Your task to perform on an android device: see creations saved in the google photos Image 0: 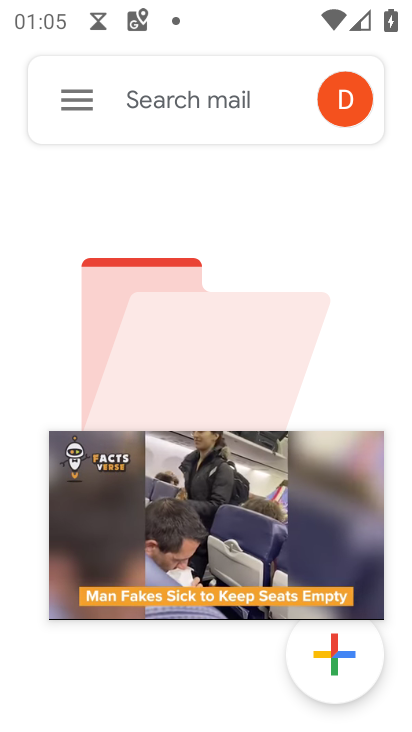
Step 0: press home button
Your task to perform on an android device: see creations saved in the google photos Image 1: 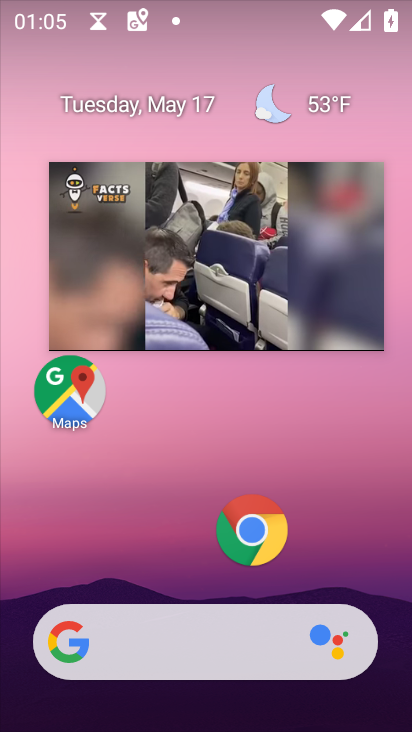
Step 1: click (381, 180)
Your task to perform on an android device: see creations saved in the google photos Image 2: 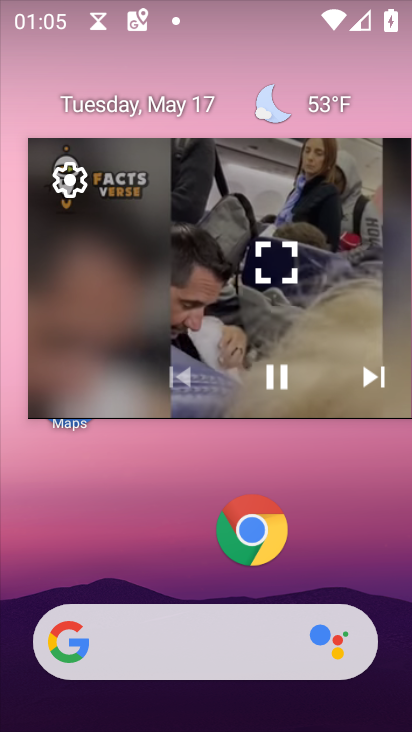
Step 2: click (350, 182)
Your task to perform on an android device: see creations saved in the google photos Image 3: 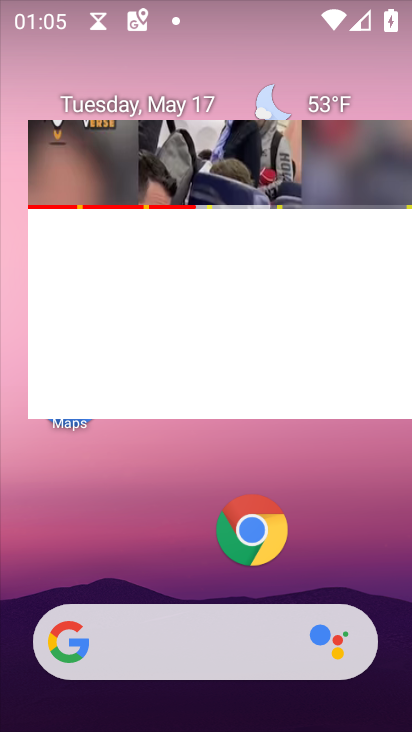
Step 3: click (353, 185)
Your task to perform on an android device: see creations saved in the google photos Image 4: 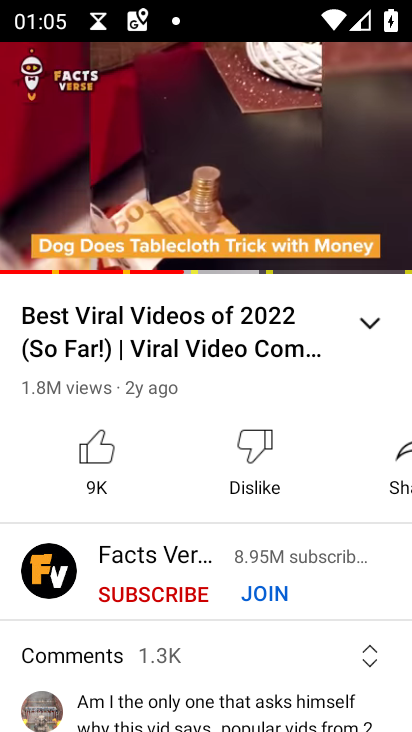
Step 4: press back button
Your task to perform on an android device: see creations saved in the google photos Image 5: 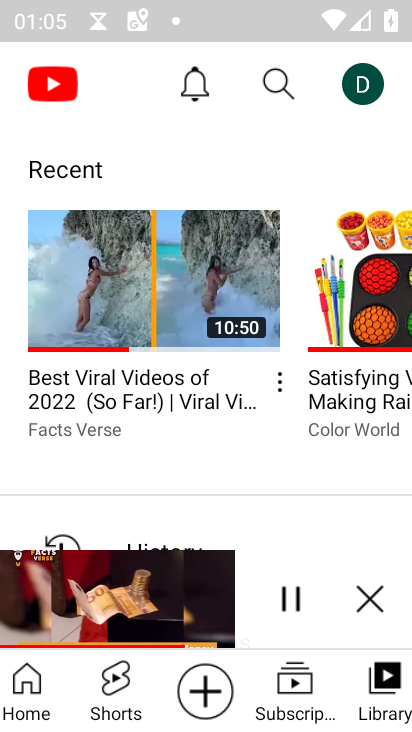
Step 5: press back button
Your task to perform on an android device: see creations saved in the google photos Image 6: 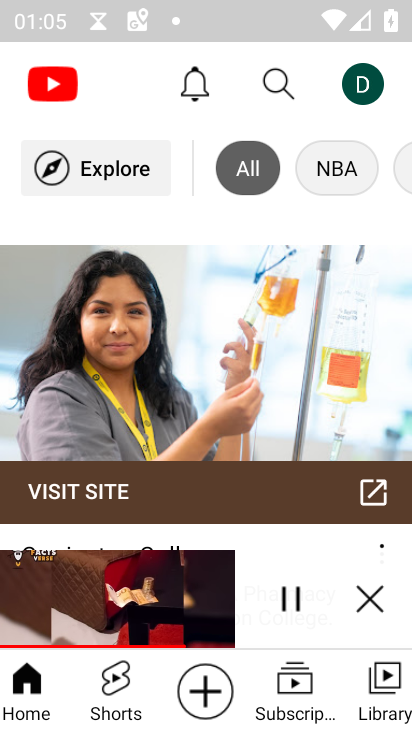
Step 6: click (356, 592)
Your task to perform on an android device: see creations saved in the google photos Image 7: 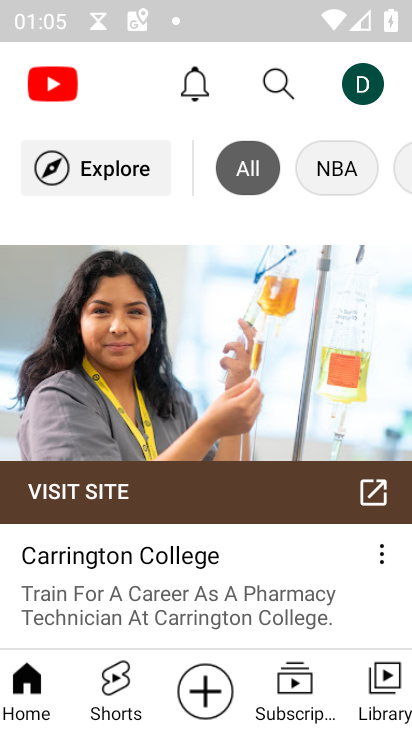
Step 7: click (356, 592)
Your task to perform on an android device: see creations saved in the google photos Image 8: 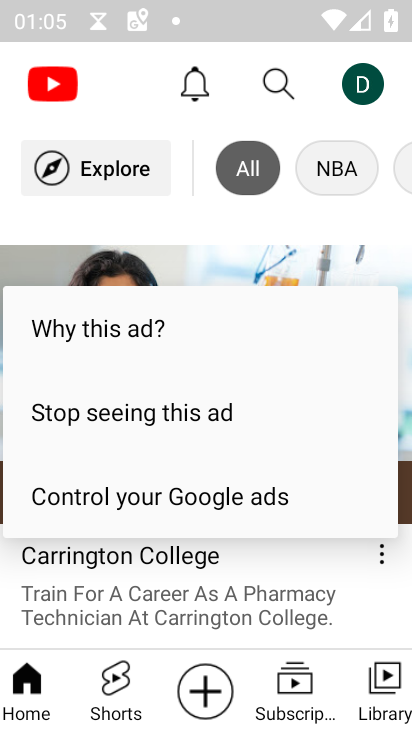
Step 8: press home button
Your task to perform on an android device: see creations saved in the google photos Image 9: 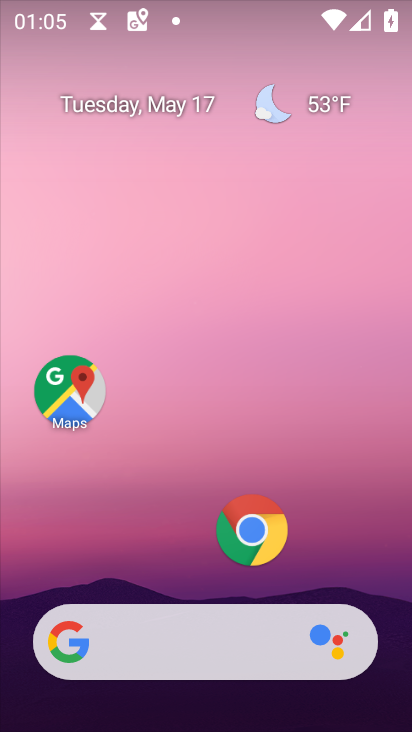
Step 9: drag from (327, 346) to (317, 127)
Your task to perform on an android device: see creations saved in the google photos Image 10: 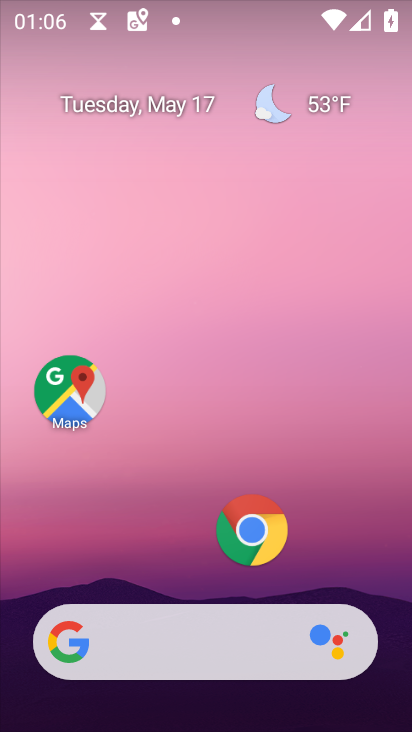
Step 10: drag from (326, 360) to (284, 82)
Your task to perform on an android device: see creations saved in the google photos Image 11: 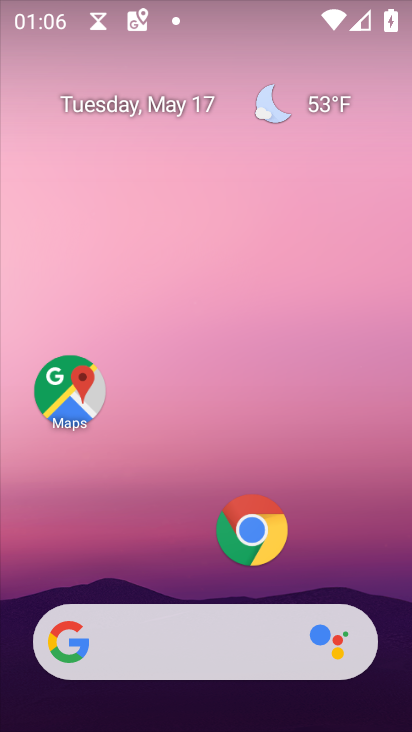
Step 11: drag from (342, 606) to (288, 155)
Your task to perform on an android device: see creations saved in the google photos Image 12: 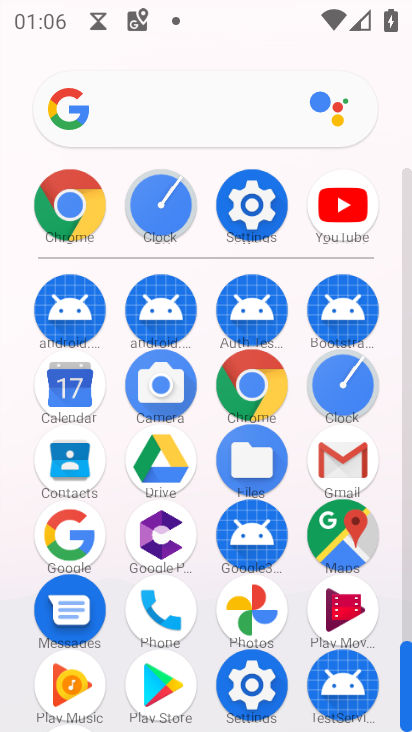
Step 12: click (247, 599)
Your task to perform on an android device: see creations saved in the google photos Image 13: 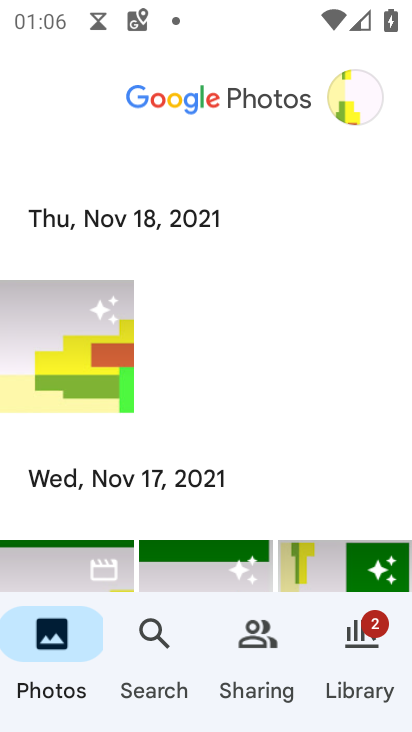
Step 13: click (158, 652)
Your task to perform on an android device: see creations saved in the google photos Image 14: 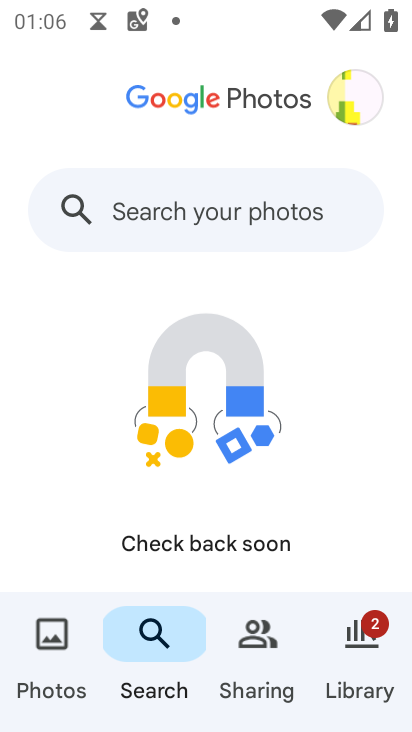
Step 14: click (252, 209)
Your task to perform on an android device: see creations saved in the google photos Image 15: 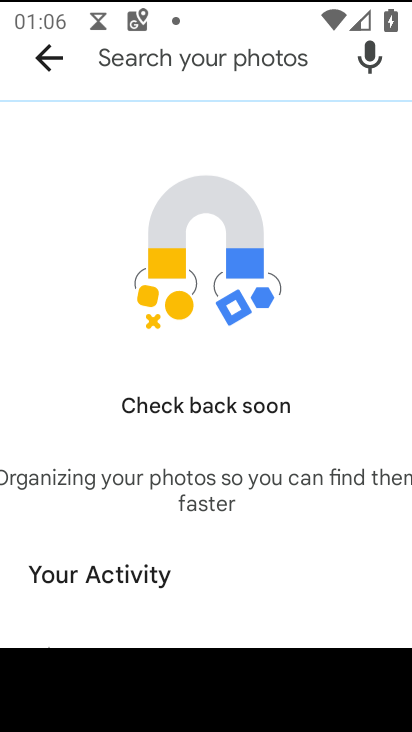
Step 15: type "creations"
Your task to perform on an android device: see creations saved in the google photos Image 16: 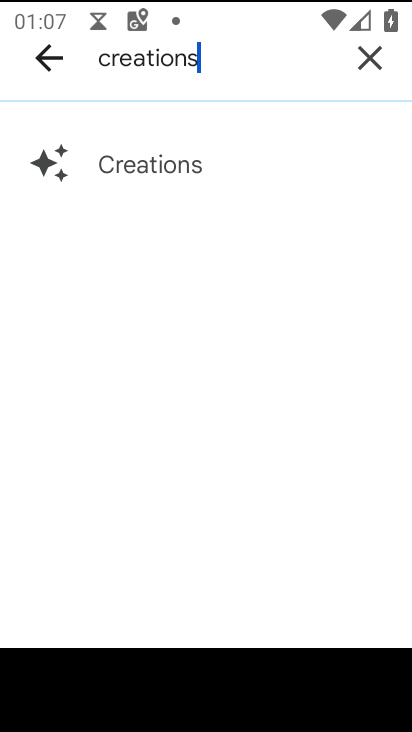
Step 16: click (149, 161)
Your task to perform on an android device: see creations saved in the google photos Image 17: 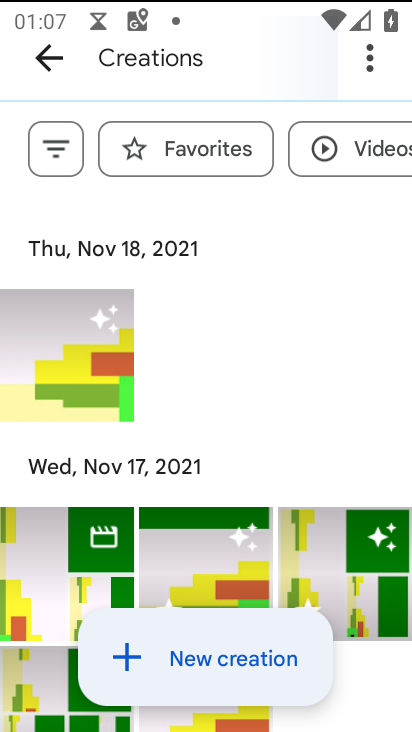
Step 17: click (165, 636)
Your task to perform on an android device: see creations saved in the google photos Image 18: 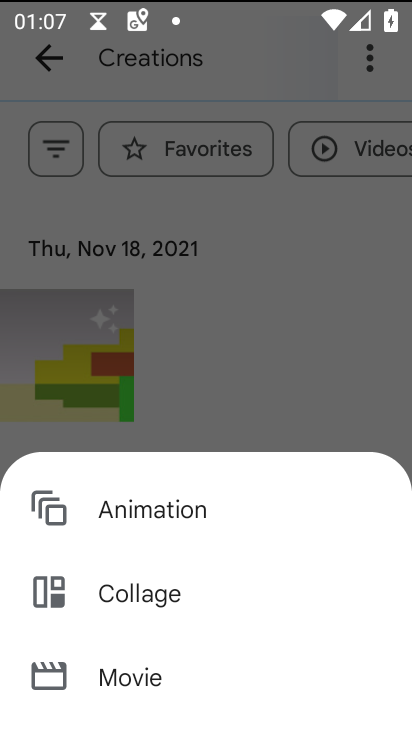
Step 18: click (138, 108)
Your task to perform on an android device: see creations saved in the google photos Image 19: 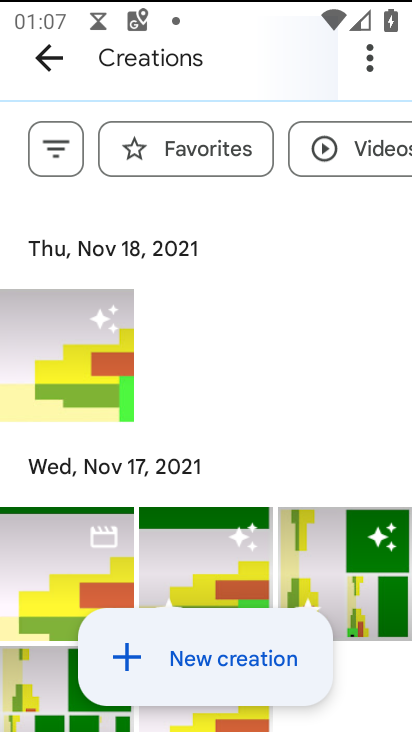
Step 19: click (201, 178)
Your task to perform on an android device: see creations saved in the google photos Image 20: 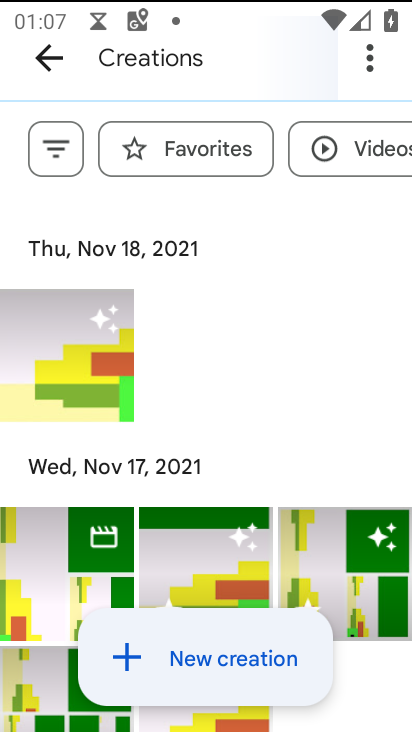
Step 20: task complete